Your task to perform on an android device: change the clock display to digital Image 0: 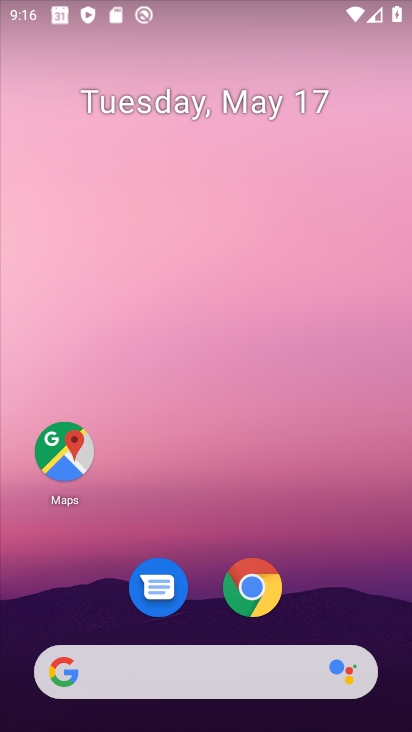
Step 0: drag from (200, 543) to (231, 200)
Your task to perform on an android device: change the clock display to digital Image 1: 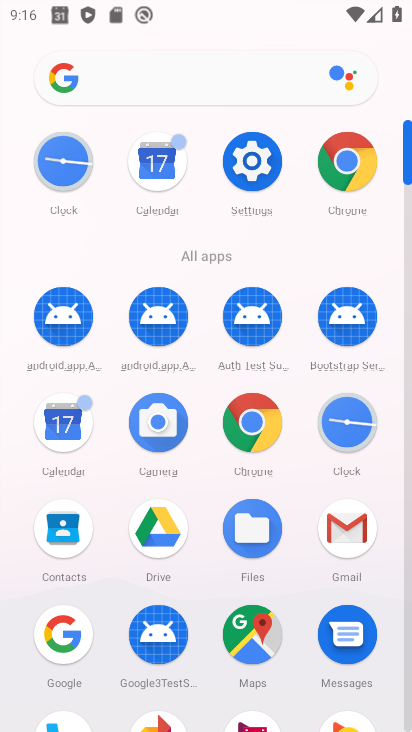
Step 1: click (333, 426)
Your task to perform on an android device: change the clock display to digital Image 2: 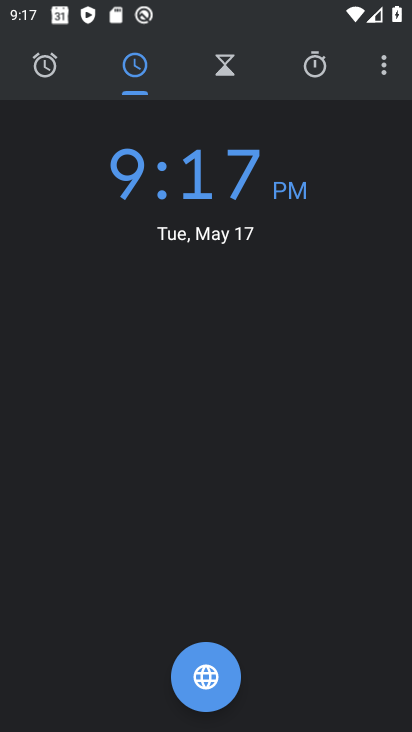
Step 2: click (381, 66)
Your task to perform on an android device: change the clock display to digital Image 3: 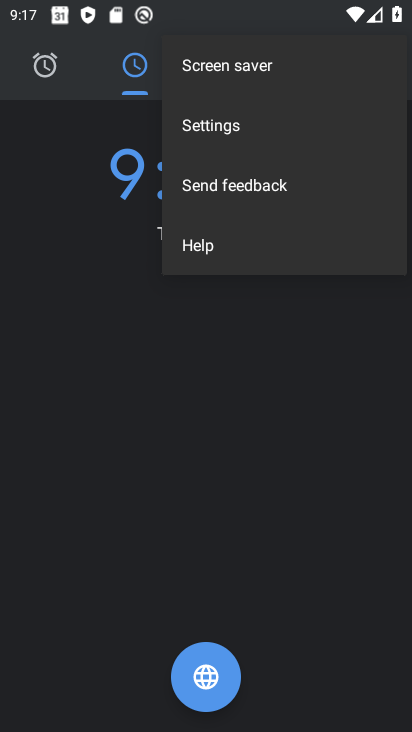
Step 3: click (281, 138)
Your task to perform on an android device: change the clock display to digital Image 4: 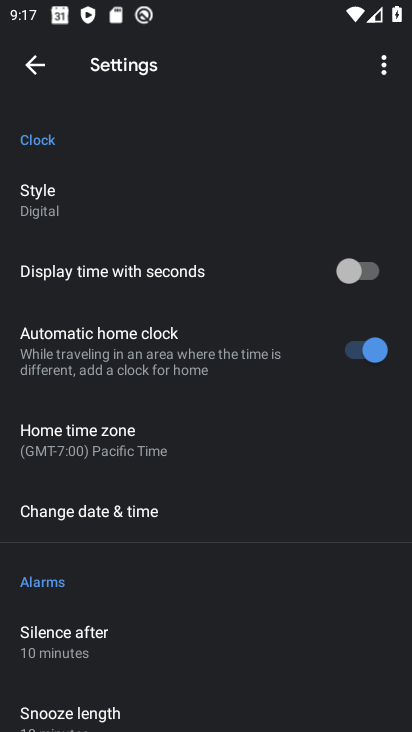
Step 4: task complete